Your task to perform on an android device: allow notifications from all sites in the chrome app Image 0: 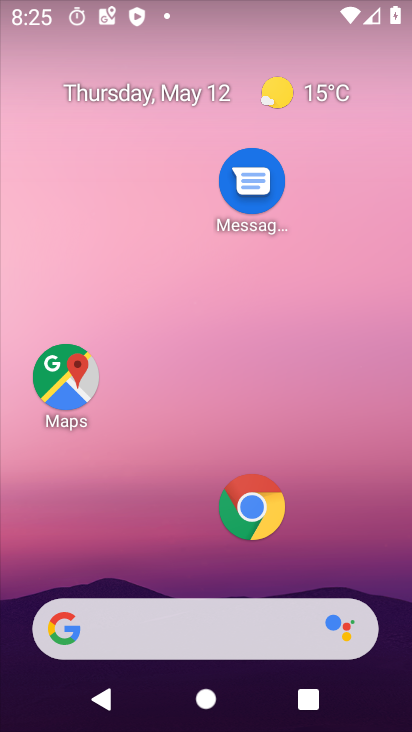
Step 0: click (256, 512)
Your task to perform on an android device: allow notifications from all sites in the chrome app Image 1: 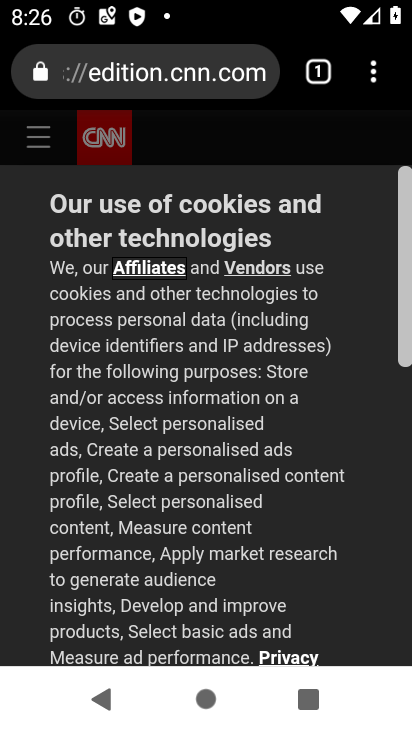
Step 1: click (374, 84)
Your task to perform on an android device: allow notifications from all sites in the chrome app Image 2: 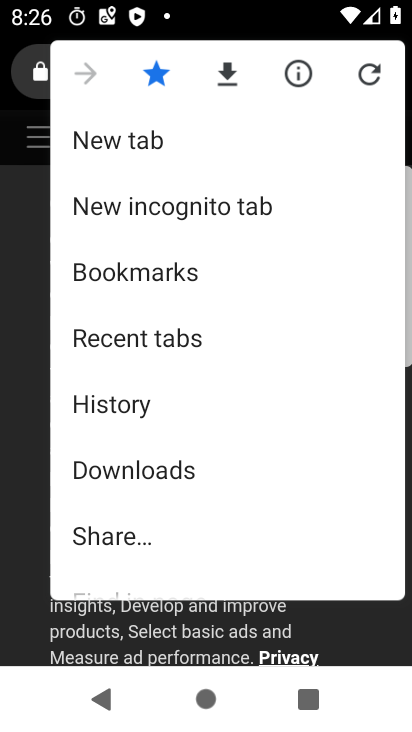
Step 2: drag from (193, 560) to (194, 371)
Your task to perform on an android device: allow notifications from all sites in the chrome app Image 3: 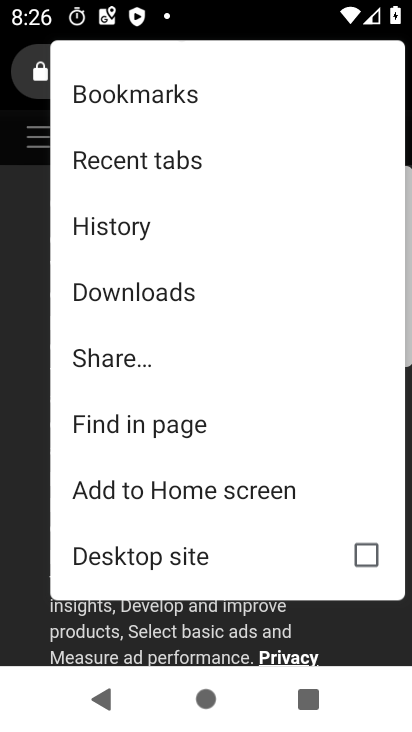
Step 3: drag from (175, 553) to (190, 356)
Your task to perform on an android device: allow notifications from all sites in the chrome app Image 4: 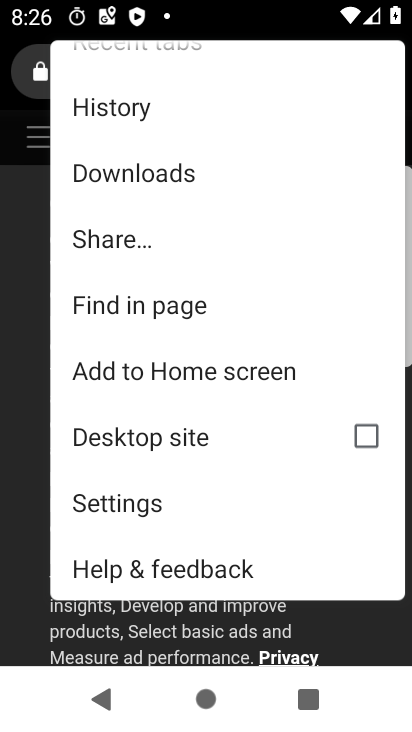
Step 4: click (186, 500)
Your task to perform on an android device: allow notifications from all sites in the chrome app Image 5: 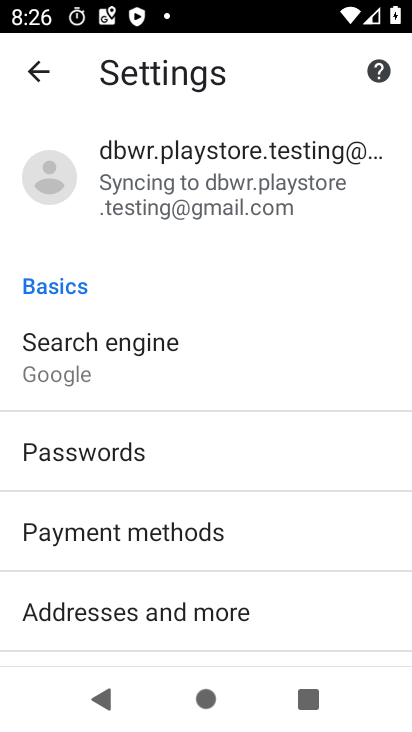
Step 5: drag from (143, 578) to (173, 395)
Your task to perform on an android device: allow notifications from all sites in the chrome app Image 6: 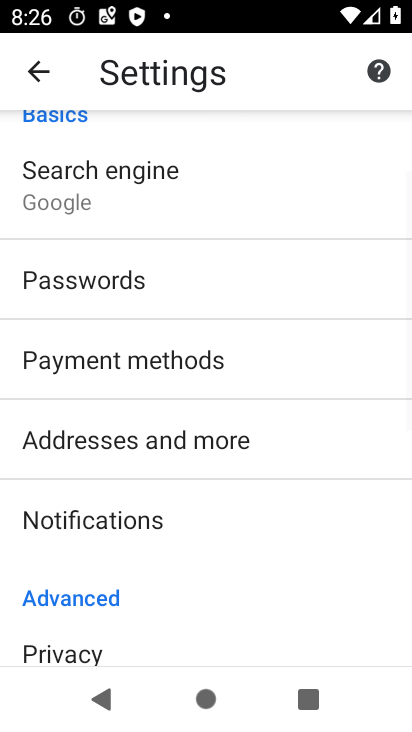
Step 6: drag from (230, 608) to (262, 384)
Your task to perform on an android device: allow notifications from all sites in the chrome app Image 7: 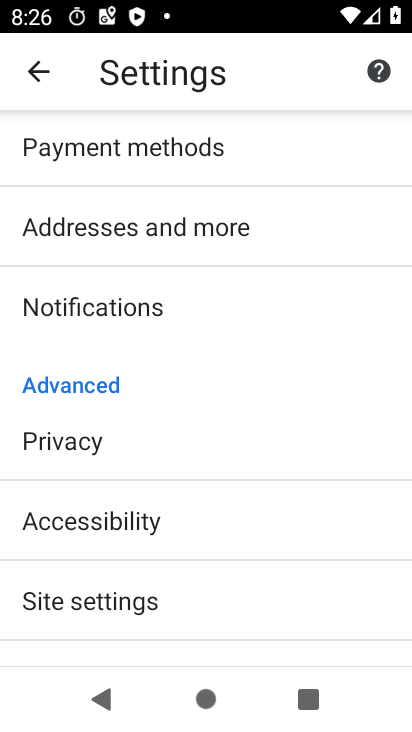
Step 7: click (141, 304)
Your task to perform on an android device: allow notifications from all sites in the chrome app Image 8: 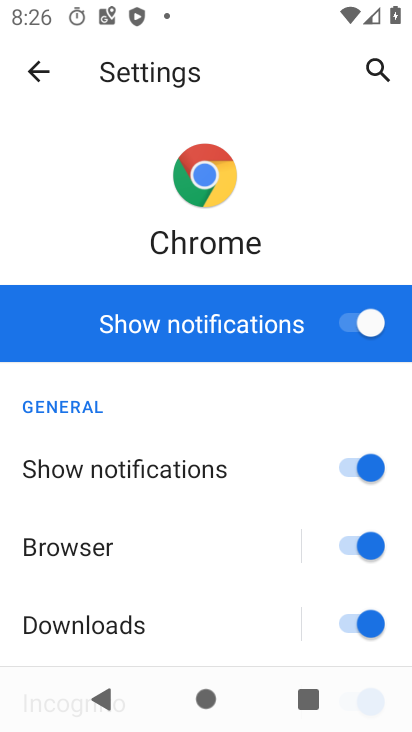
Step 8: task complete